Your task to perform on an android device: Search for seafood restaurants on Google Maps Image 0: 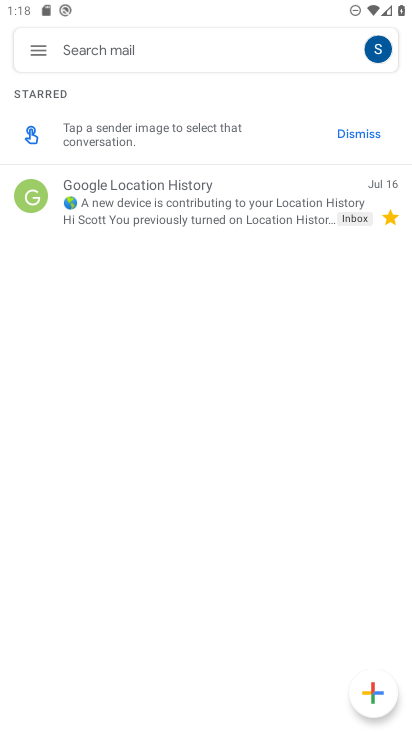
Step 0: press home button
Your task to perform on an android device: Search for seafood restaurants on Google Maps Image 1: 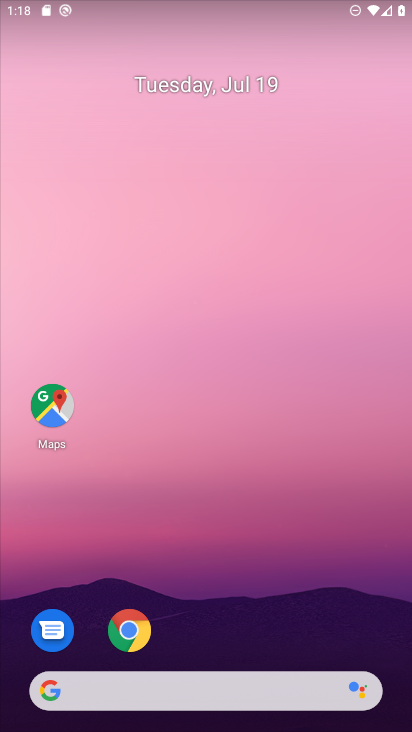
Step 1: click (58, 410)
Your task to perform on an android device: Search for seafood restaurants on Google Maps Image 2: 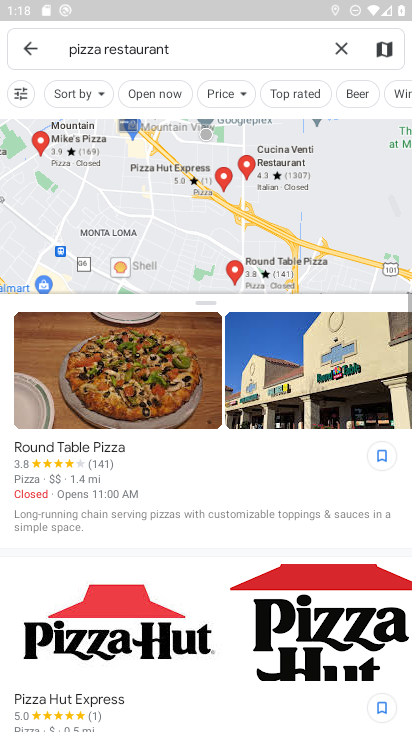
Step 2: click (343, 48)
Your task to perform on an android device: Search for seafood restaurants on Google Maps Image 3: 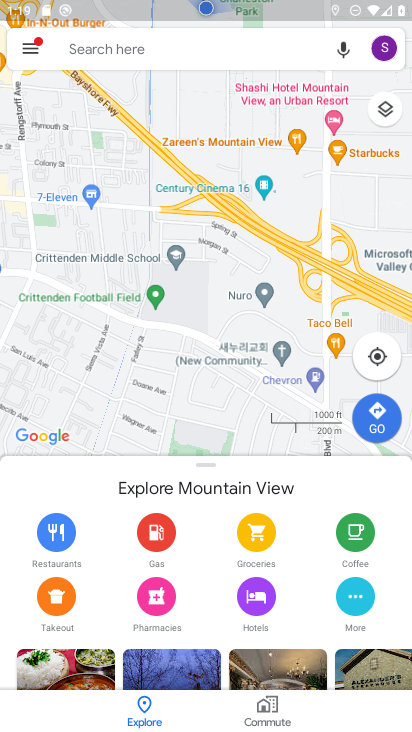
Step 3: click (138, 45)
Your task to perform on an android device: Search for seafood restaurants on Google Maps Image 4: 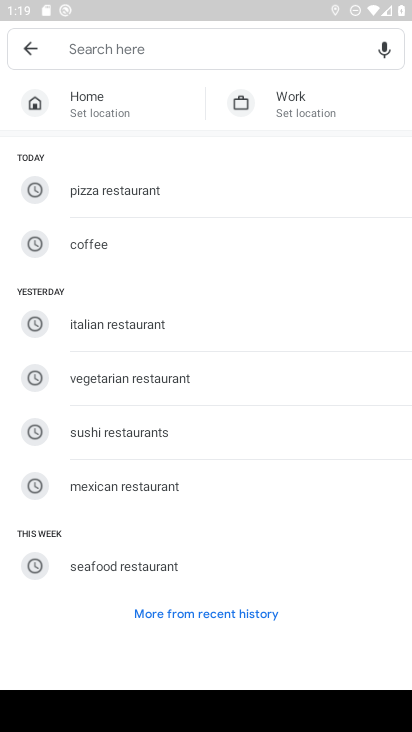
Step 4: click (128, 571)
Your task to perform on an android device: Search for seafood restaurants on Google Maps Image 5: 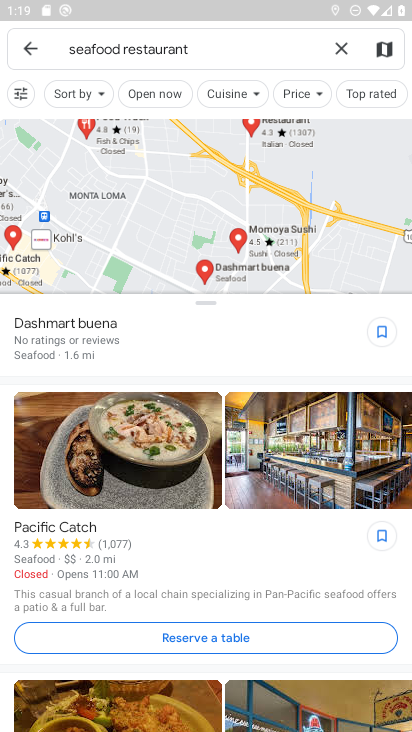
Step 5: task complete